Your task to perform on an android device: Do I have any events tomorrow? Image 0: 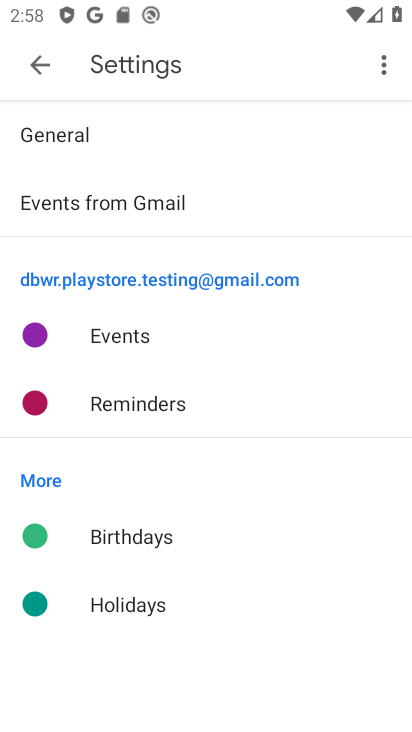
Step 0: press home button
Your task to perform on an android device: Do I have any events tomorrow? Image 1: 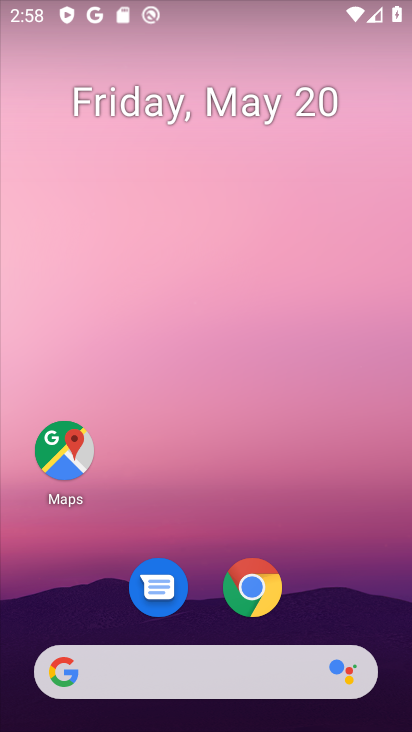
Step 1: drag from (211, 668) to (316, 141)
Your task to perform on an android device: Do I have any events tomorrow? Image 2: 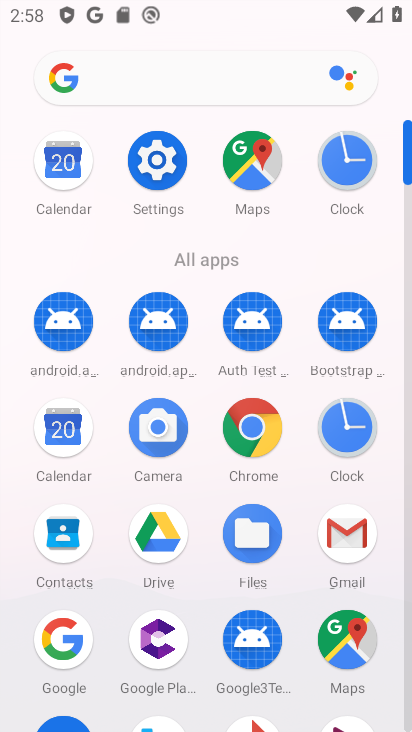
Step 2: click (65, 167)
Your task to perform on an android device: Do I have any events tomorrow? Image 3: 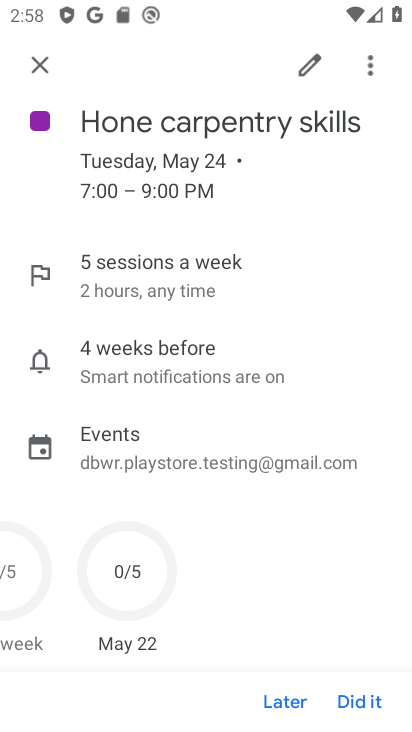
Step 3: click (40, 59)
Your task to perform on an android device: Do I have any events tomorrow? Image 4: 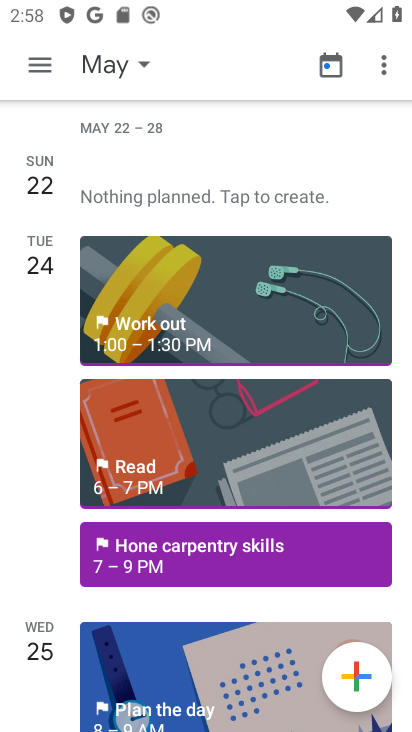
Step 4: click (105, 69)
Your task to perform on an android device: Do I have any events tomorrow? Image 5: 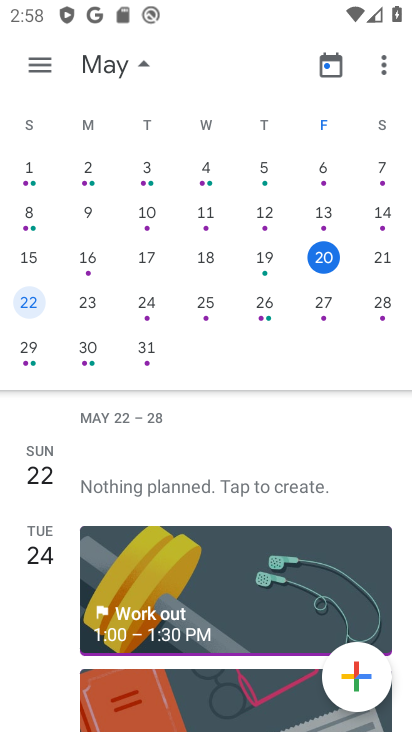
Step 5: click (388, 255)
Your task to perform on an android device: Do I have any events tomorrow? Image 6: 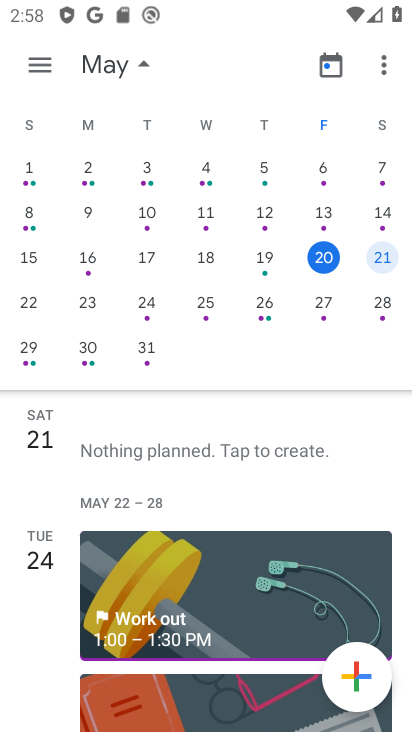
Step 6: click (41, 60)
Your task to perform on an android device: Do I have any events tomorrow? Image 7: 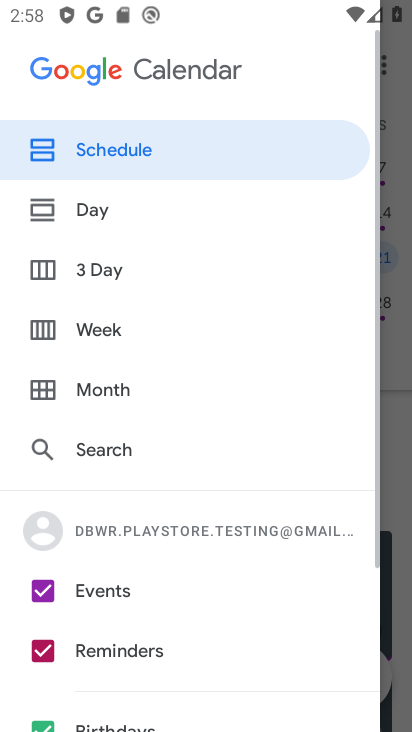
Step 7: click (85, 154)
Your task to perform on an android device: Do I have any events tomorrow? Image 8: 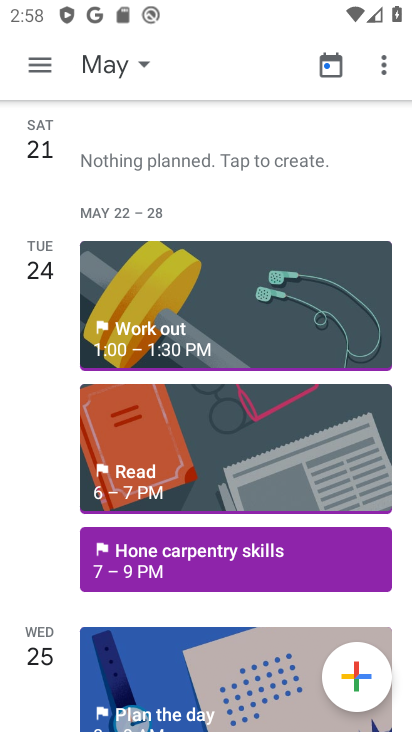
Step 8: click (235, 172)
Your task to perform on an android device: Do I have any events tomorrow? Image 9: 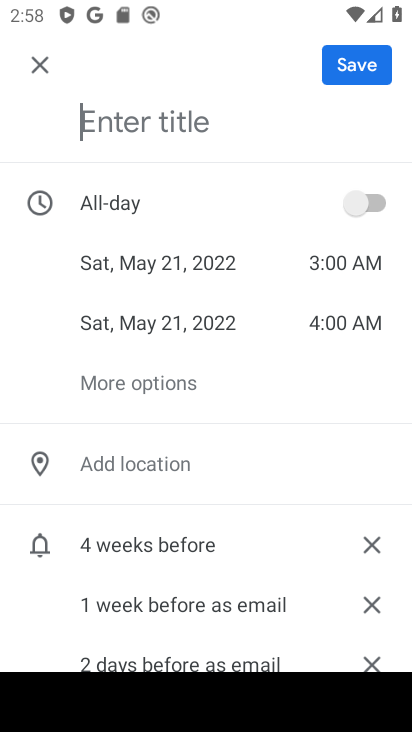
Step 9: task complete